Your task to perform on an android device: Open Maps and search for coffee Image 0: 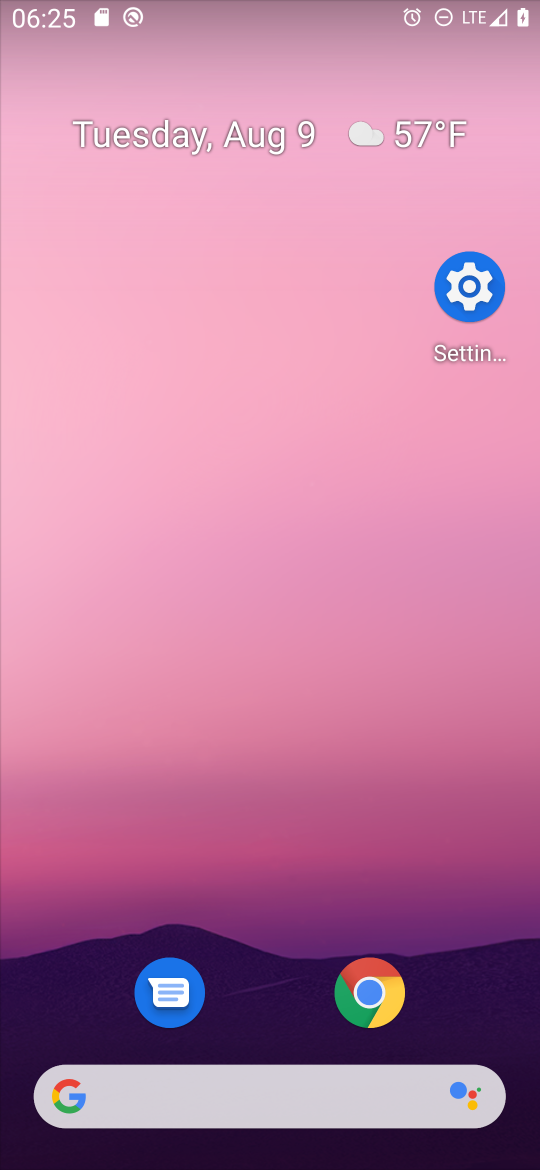
Step 0: drag from (322, 1109) to (308, 236)
Your task to perform on an android device: Open Maps and search for coffee Image 1: 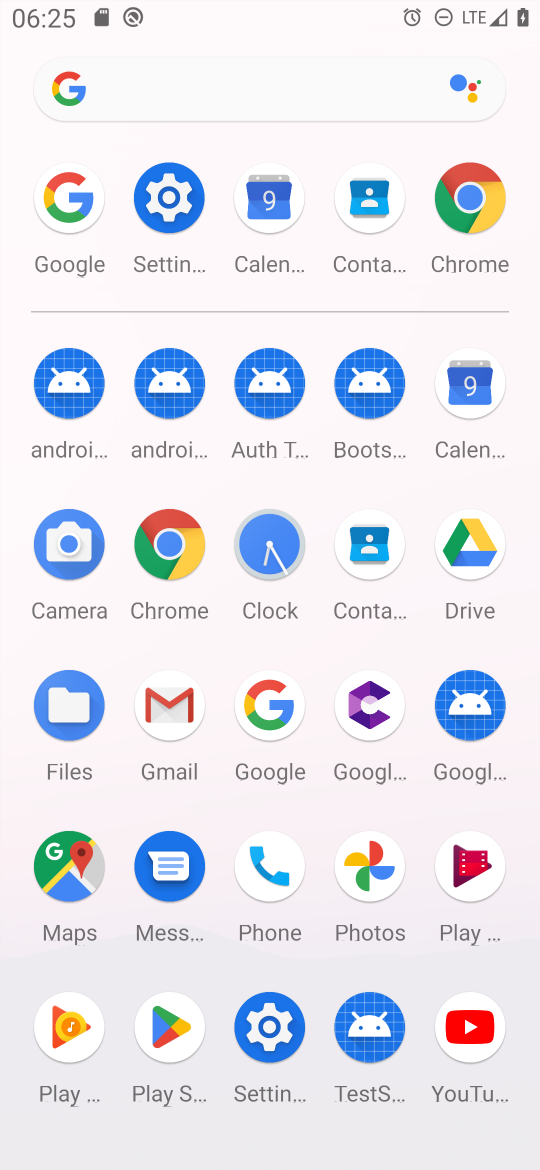
Step 1: click (73, 856)
Your task to perform on an android device: Open Maps and search for coffee Image 2: 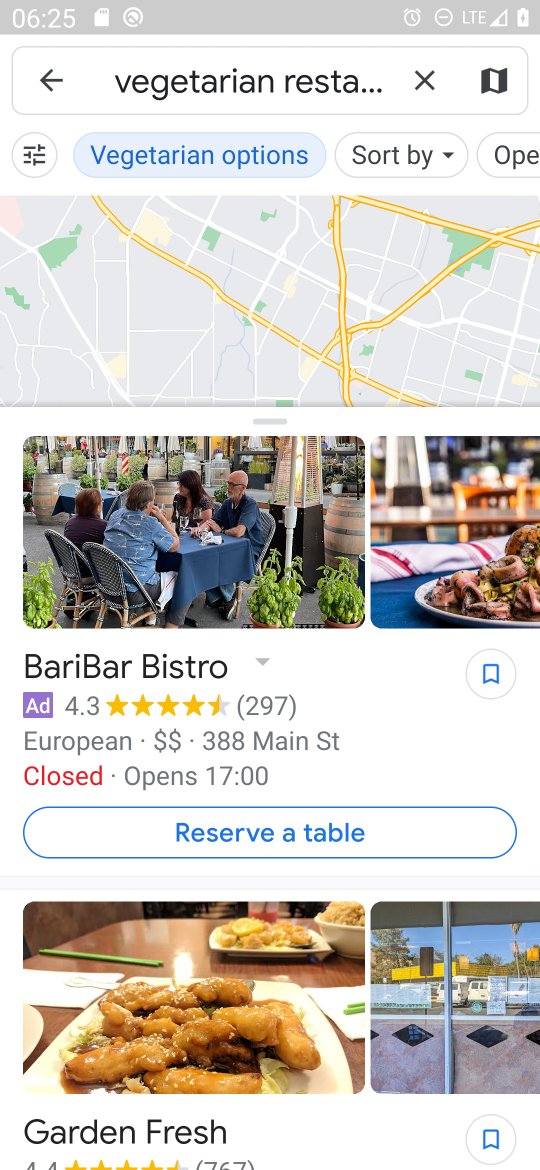
Step 2: click (424, 74)
Your task to perform on an android device: Open Maps and search for coffee Image 3: 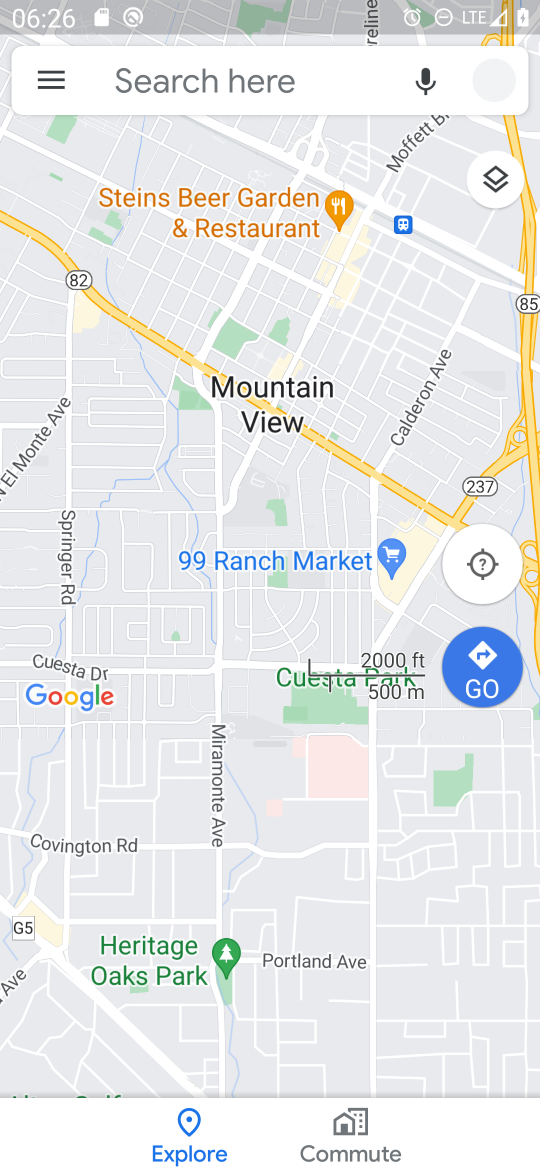
Step 3: click (276, 73)
Your task to perform on an android device: Open Maps and search for coffee Image 4: 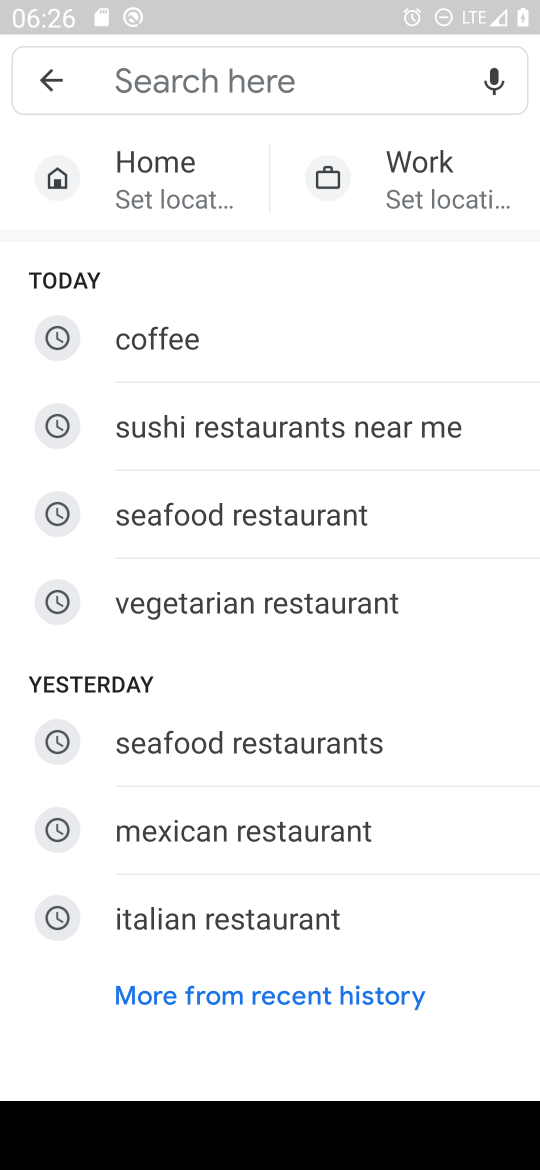
Step 4: type "coffee"
Your task to perform on an android device: Open Maps and search for coffee Image 5: 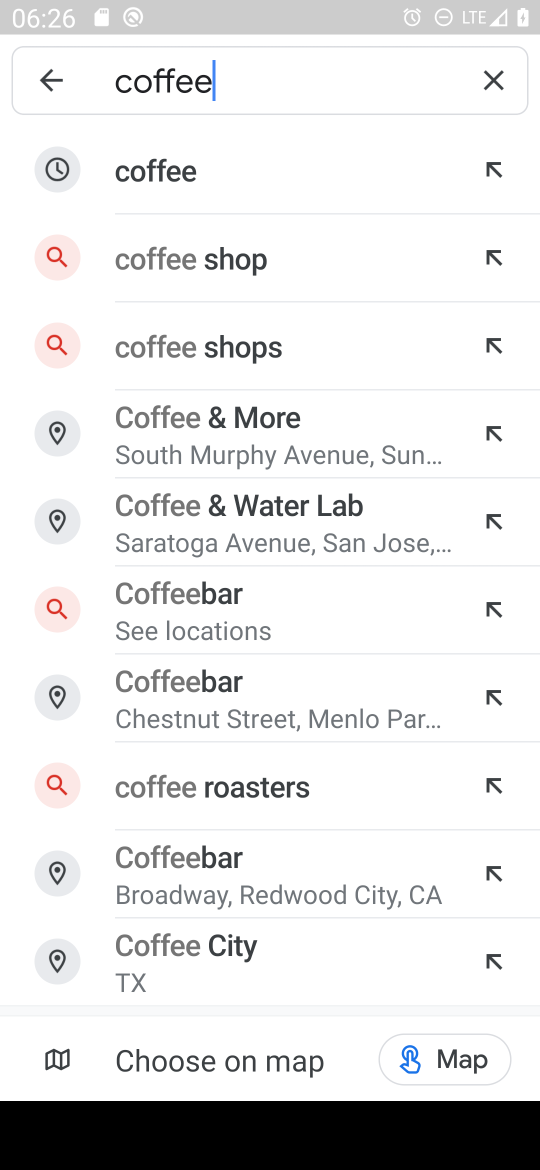
Step 5: click (334, 196)
Your task to perform on an android device: Open Maps and search for coffee Image 6: 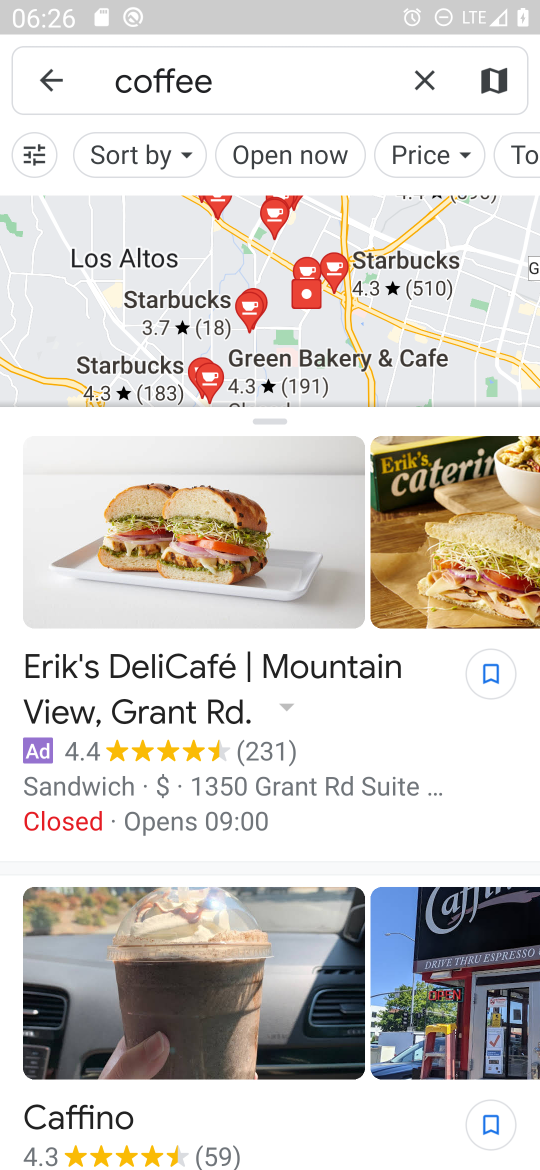
Step 6: task complete